Your task to perform on an android device: Go to Google Image 0: 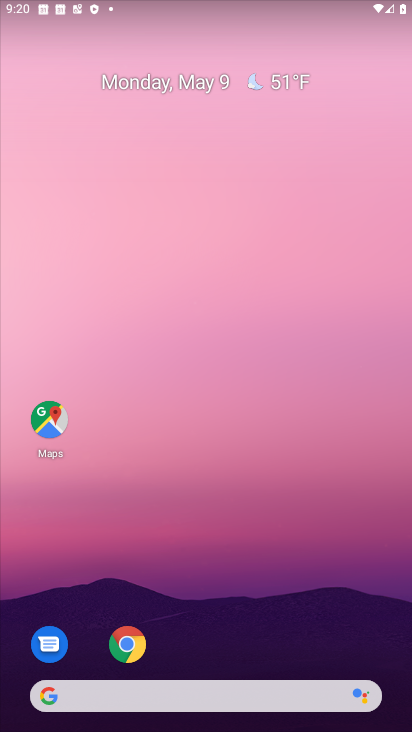
Step 0: drag from (230, 680) to (133, 19)
Your task to perform on an android device: Go to Google Image 1: 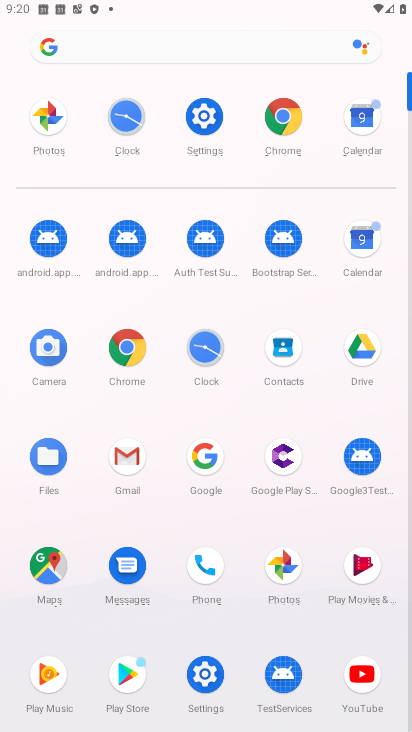
Step 1: click (194, 473)
Your task to perform on an android device: Go to Google Image 2: 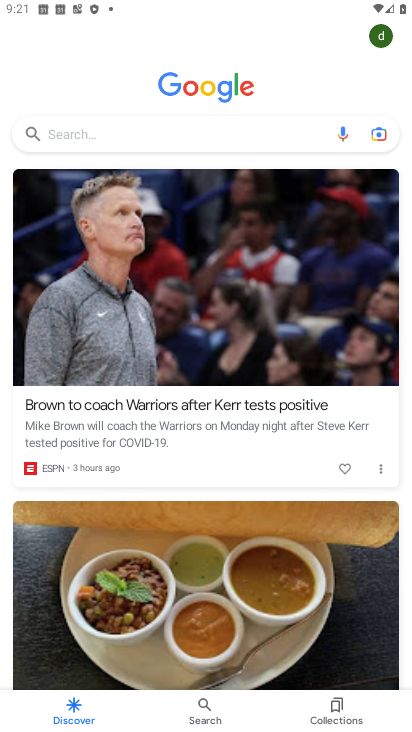
Step 2: task complete